Your task to perform on an android device: clear all cookies in the chrome app Image 0: 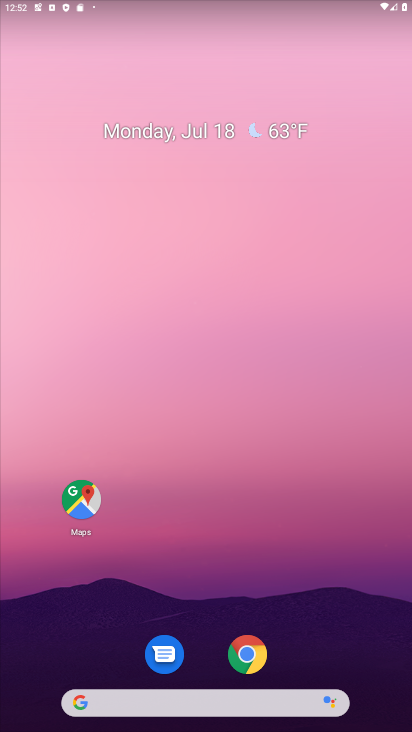
Step 0: click (252, 652)
Your task to perform on an android device: clear all cookies in the chrome app Image 1: 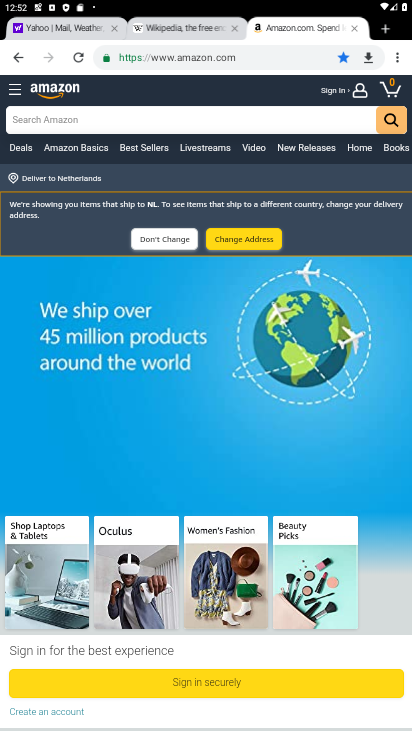
Step 1: click (401, 57)
Your task to perform on an android device: clear all cookies in the chrome app Image 2: 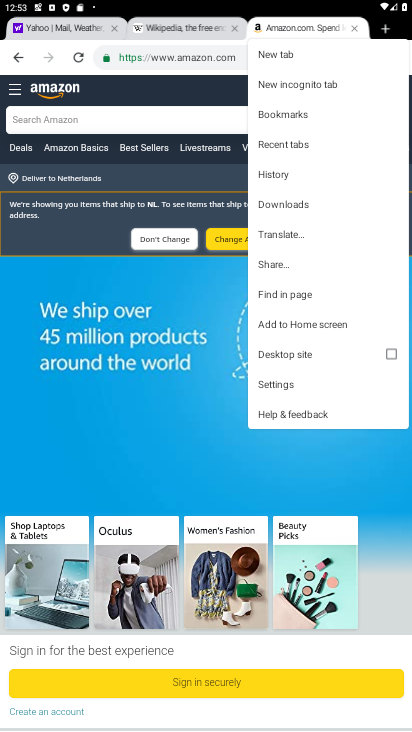
Step 2: click (288, 167)
Your task to perform on an android device: clear all cookies in the chrome app Image 3: 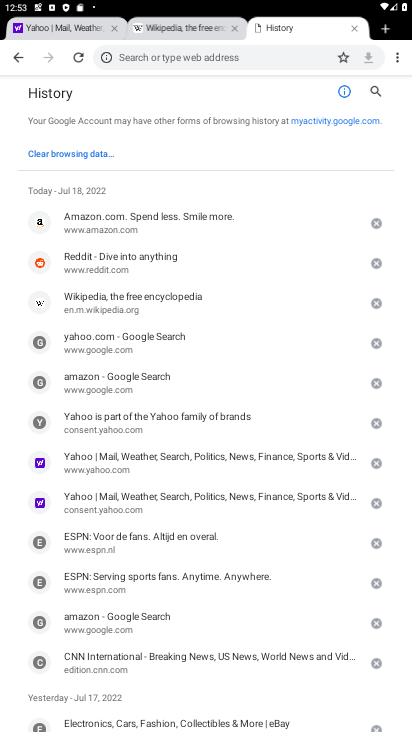
Step 3: click (74, 157)
Your task to perform on an android device: clear all cookies in the chrome app Image 4: 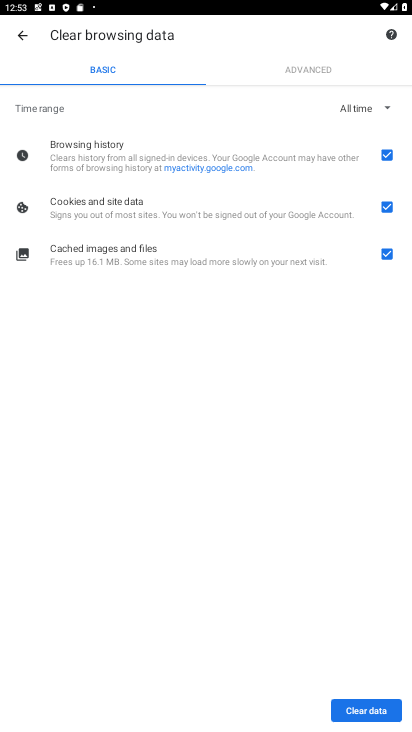
Step 4: click (353, 707)
Your task to perform on an android device: clear all cookies in the chrome app Image 5: 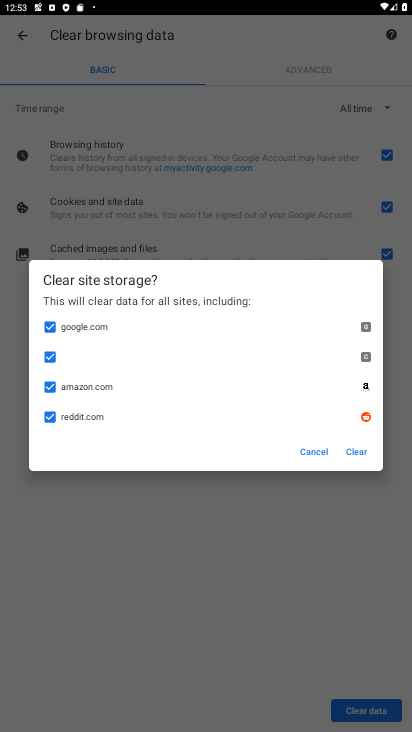
Step 5: click (355, 449)
Your task to perform on an android device: clear all cookies in the chrome app Image 6: 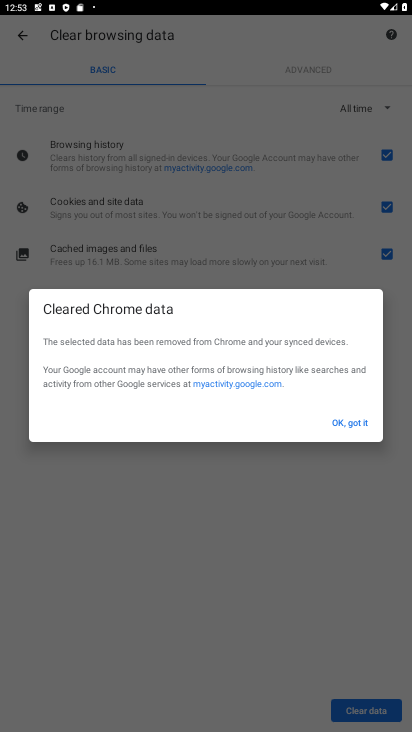
Step 6: task complete